Your task to perform on an android device: Show me recent news Image 0: 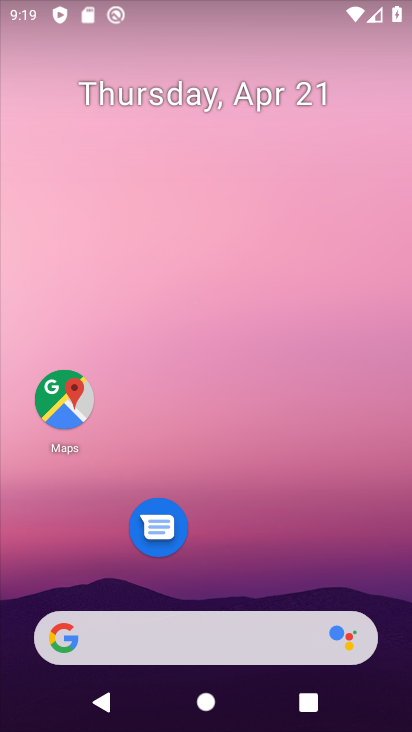
Step 0: drag from (205, 589) to (235, 78)
Your task to perform on an android device: Show me recent news Image 1: 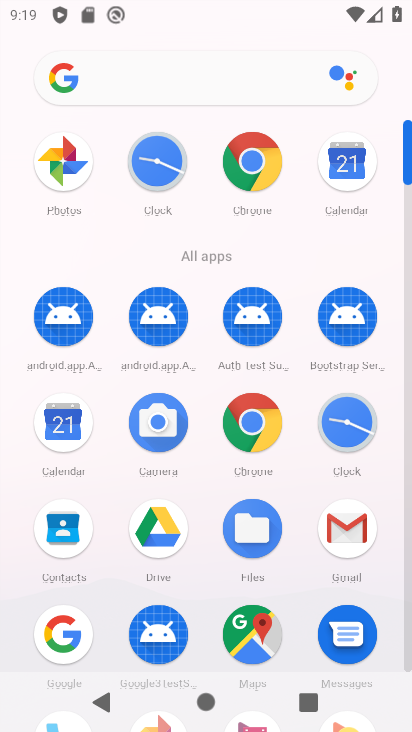
Step 1: click (76, 648)
Your task to perform on an android device: Show me recent news Image 2: 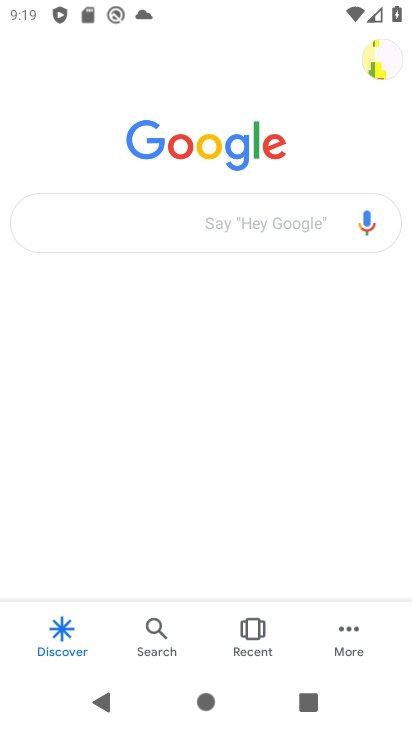
Step 2: click (176, 225)
Your task to perform on an android device: Show me recent news Image 3: 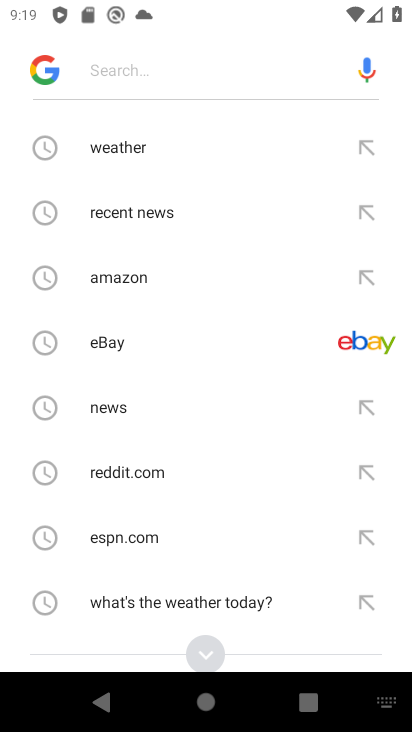
Step 3: type "recent news"
Your task to perform on an android device: Show me recent news Image 4: 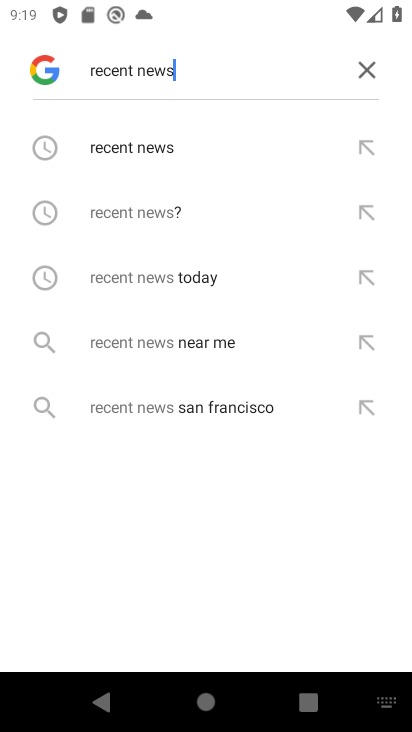
Step 4: click (148, 155)
Your task to perform on an android device: Show me recent news Image 5: 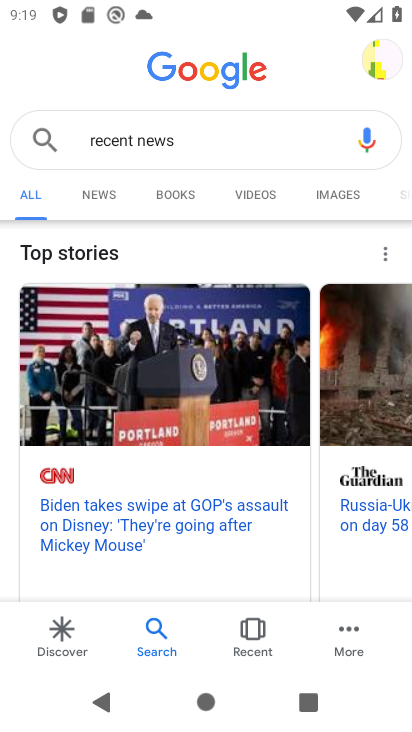
Step 5: task complete